Your task to perform on an android device: Is it going to rain this weekend? Image 0: 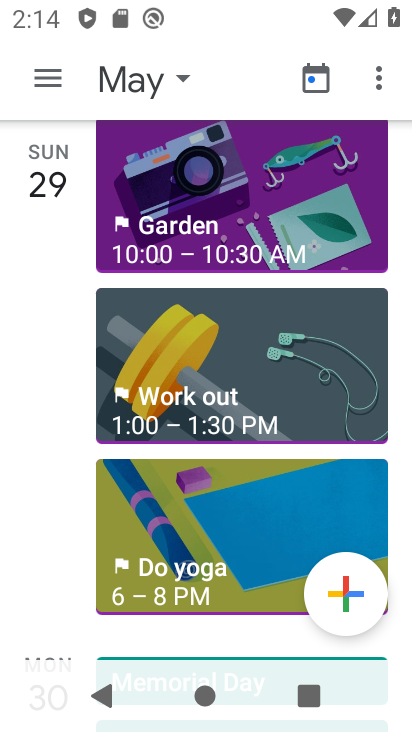
Step 0: press home button
Your task to perform on an android device: Is it going to rain this weekend? Image 1: 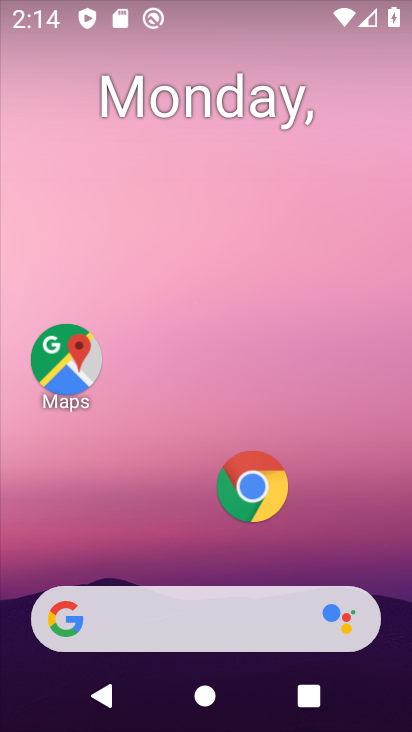
Step 1: click (136, 622)
Your task to perform on an android device: Is it going to rain this weekend? Image 2: 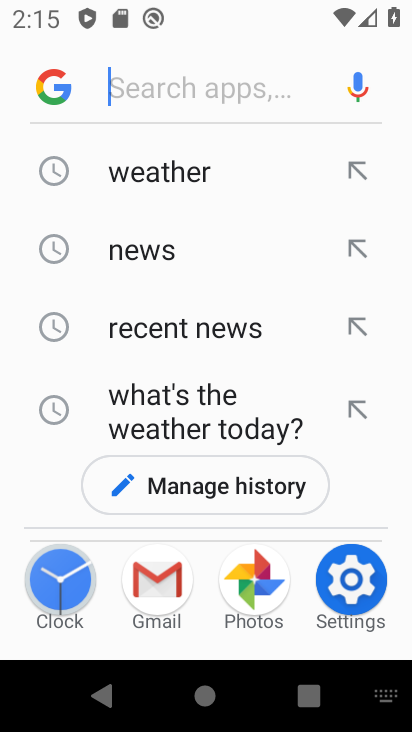
Step 2: type "is it going to rain this weekend"
Your task to perform on an android device: Is it going to rain this weekend? Image 3: 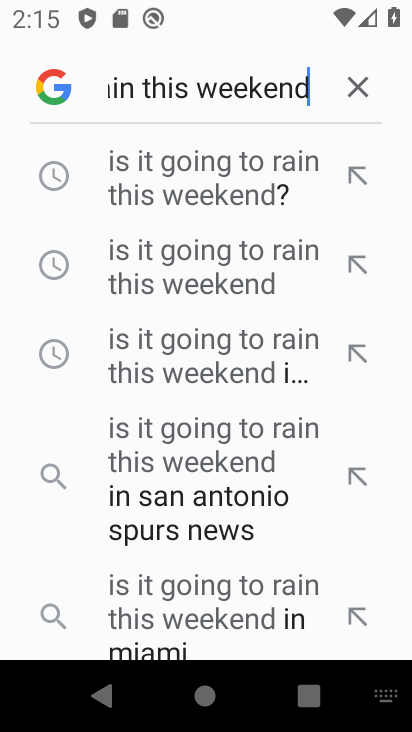
Step 3: click (142, 179)
Your task to perform on an android device: Is it going to rain this weekend? Image 4: 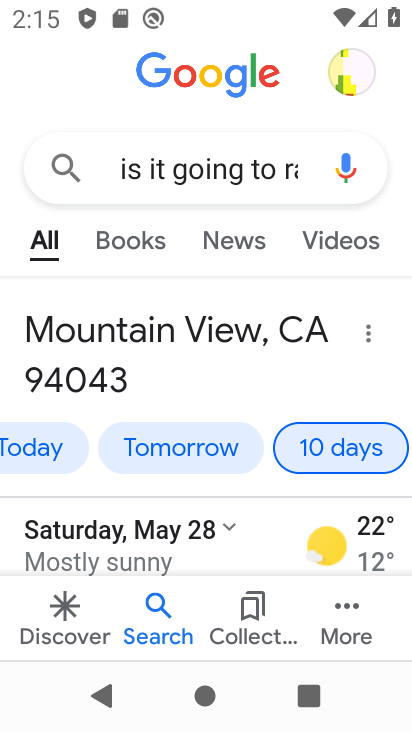
Step 4: task complete